Your task to perform on an android device: turn off priority inbox in the gmail app Image 0: 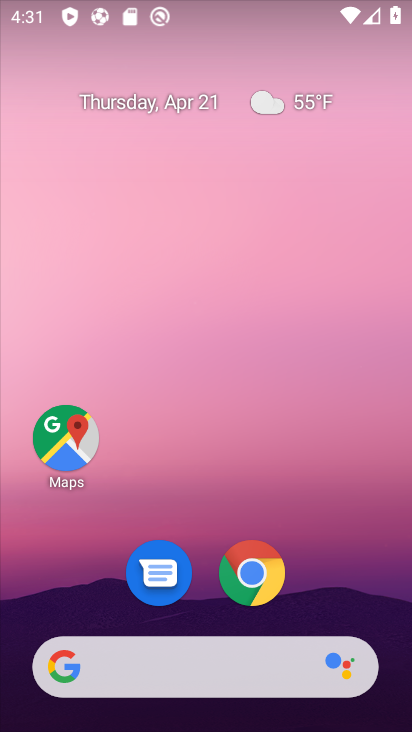
Step 0: drag from (376, 560) to (270, 147)
Your task to perform on an android device: turn off priority inbox in the gmail app Image 1: 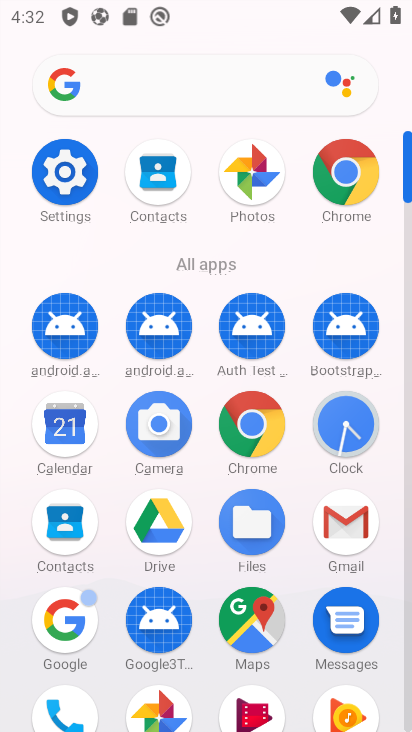
Step 1: click (358, 514)
Your task to perform on an android device: turn off priority inbox in the gmail app Image 2: 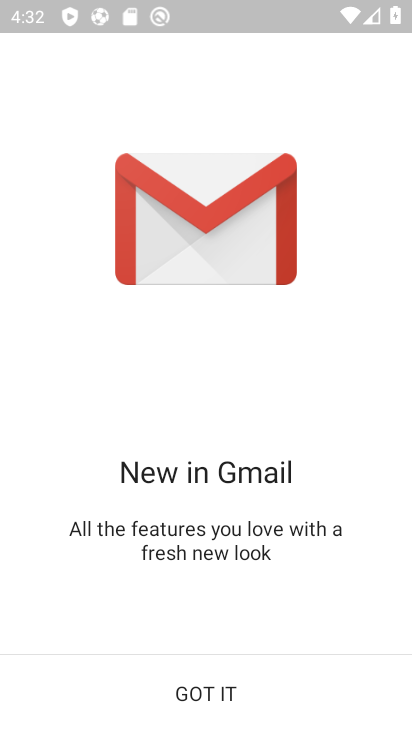
Step 2: click (203, 686)
Your task to perform on an android device: turn off priority inbox in the gmail app Image 3: 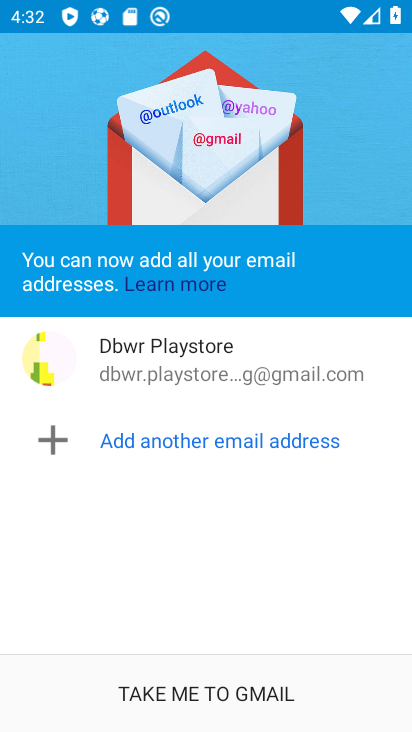
Step 3: click (203, 686)
Your task to perform on an android device: turn off priority inbox in the gmail app Image 4: 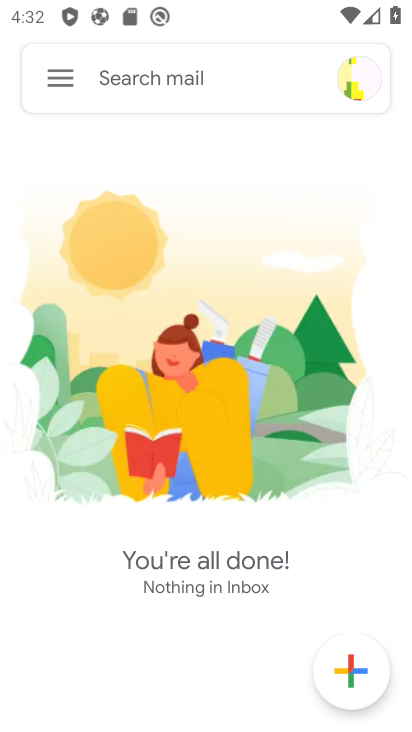
Step 4: click (70, 75)
Your task to perform on an android device: turn off priority inbox in the gmail app Image 5: 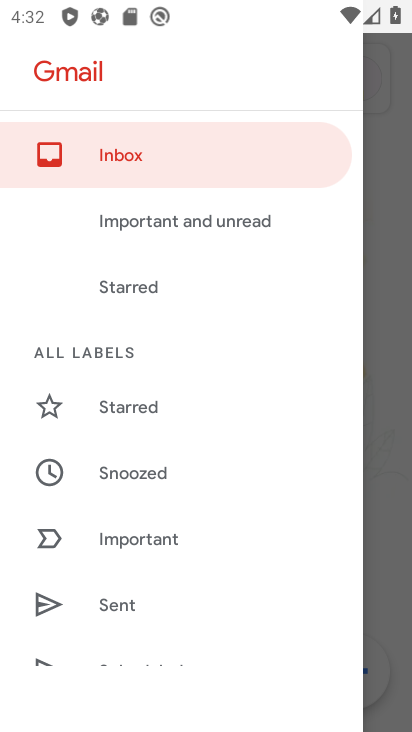
Step 5: drag from (260, 622) to (266, 112)
Your task to perform on an android device: turn off priority inbox in the gmail app Image 6: 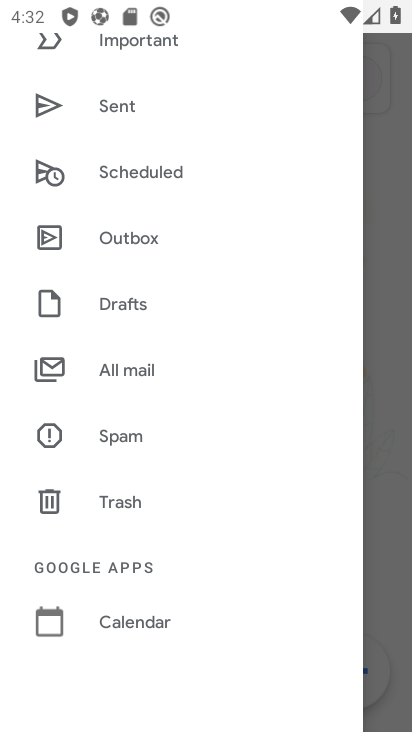
Step 6: drag from (191, 552) to (197, 142)
Your task to perform on an android device: turn off priority inbox in the gmail app Image 7: 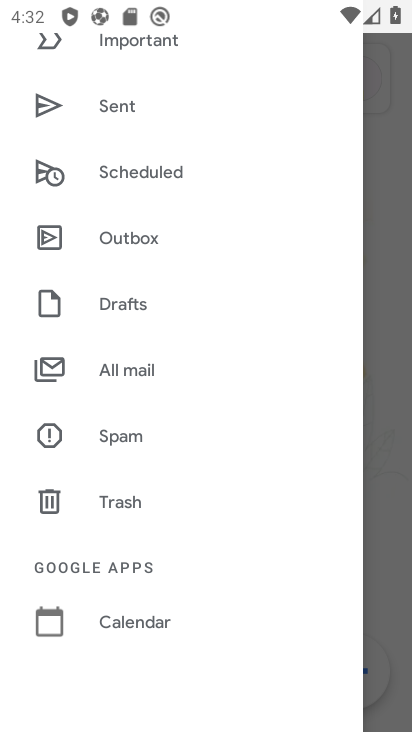
Step 7: drag from (156, 597) to (180, 291)
Your task to perform on an android device: turn off priority inbox in the gmail app Image 8: 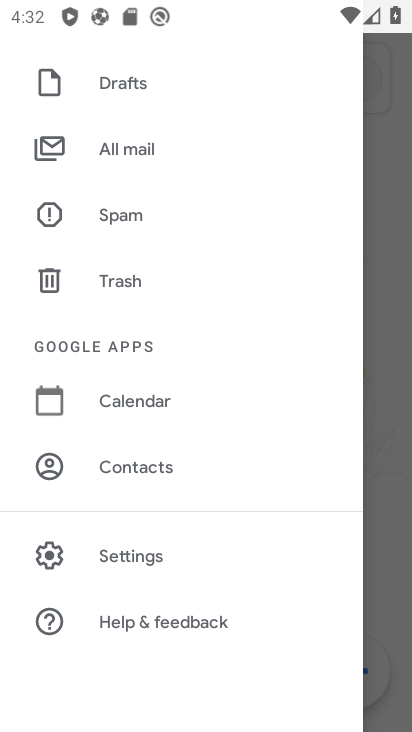
Step 8: click (179, 543)
Your task to perform on an android device: turn off priority inbox in the gmail app Image 9: 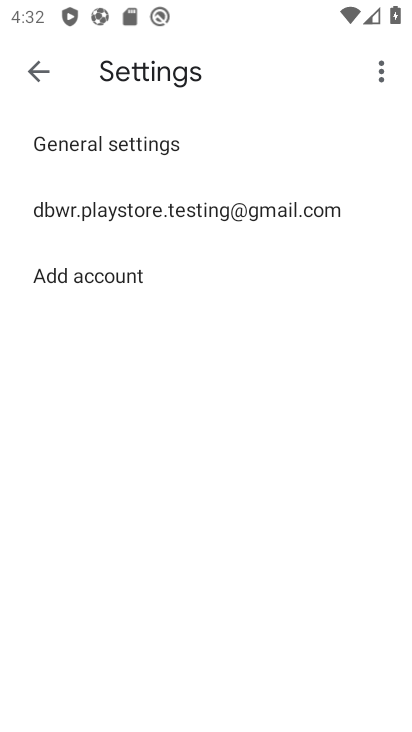
Step 9: click (202, 213)
Your task to perform on an android device: turn off priority inbox in the gmail app Image 10: 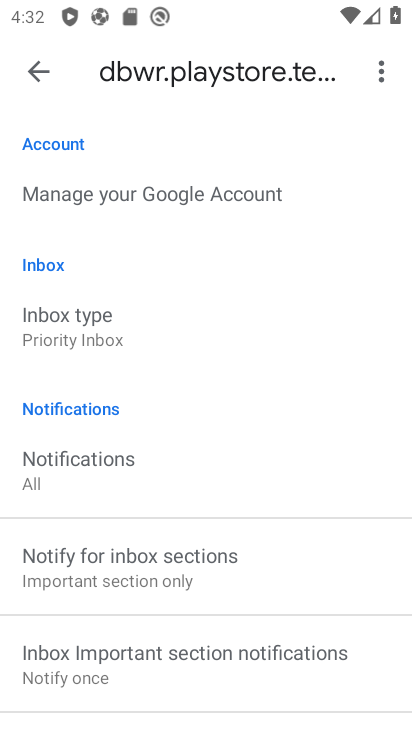
Step 10: click (231, 331)
Your task to perform on an android device: turn off priority inbox in the gmail app Image 11: 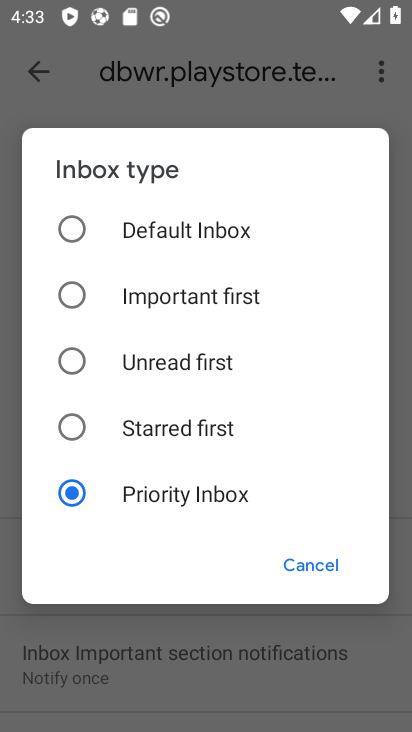
Step 11: click (219, 240)
Your task to perform on an android device: turn off priority inbox in the gmail app Image 12: 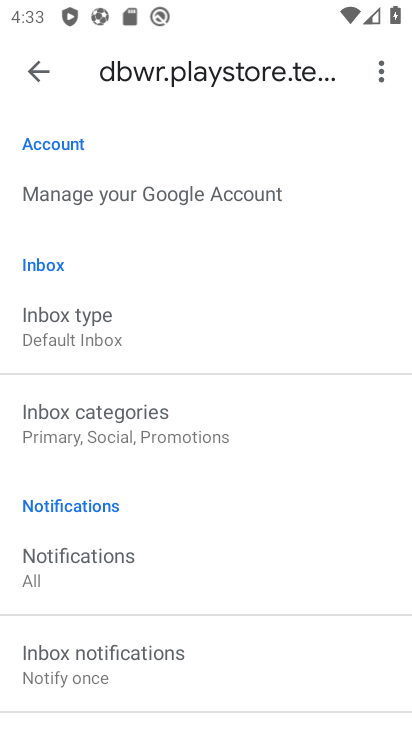
Step 12: task complete